Your task to perform on an android device: open chrome and create a bookmark for the current page Image 0: 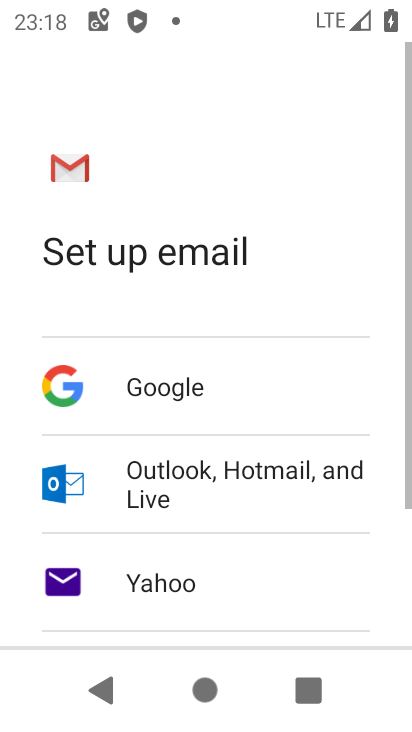
Step 0: press home button
Your task to perform on an android device: open chrome and create a bookmark for the current page Image 1: 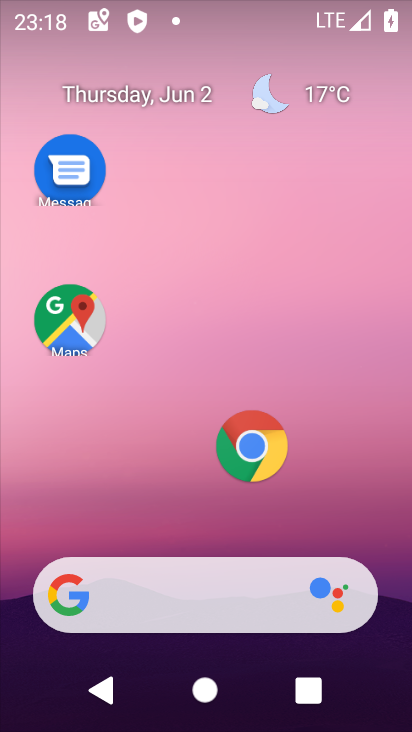
Step 1: click (267, 473)
Your task to perform on an android device: open chrome and create a bookmark for the current page Image 2: 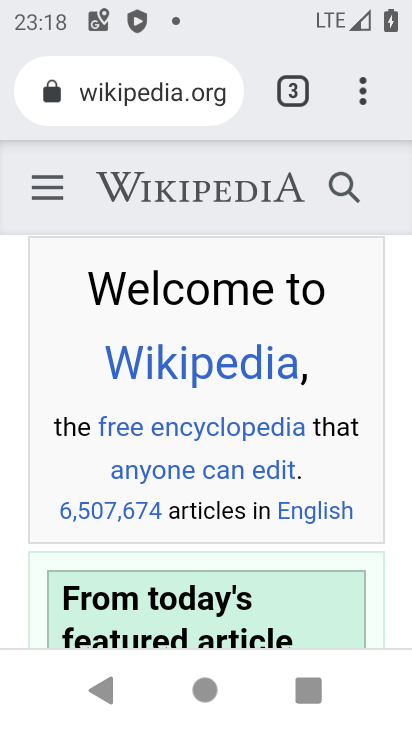
Step 2: drag from (372, 104) to (326, 57)
Your task to perform on an android device: open chrome and create a bookmark for the current page Image 3: 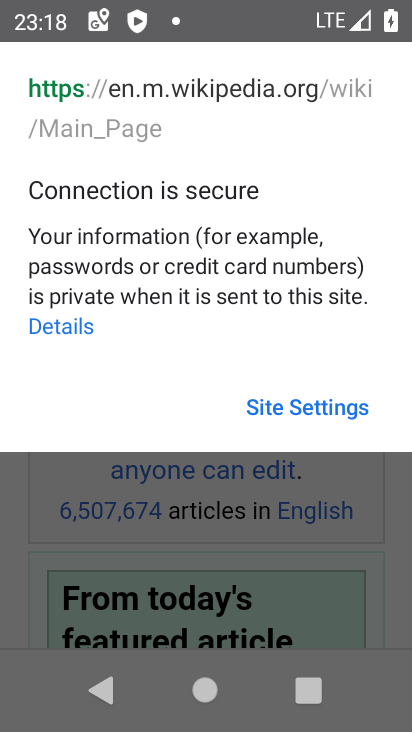
Step 3: click (349, 509)
Your task to perform on an android device: open chrome and create a bookmark for the current page Image 4: 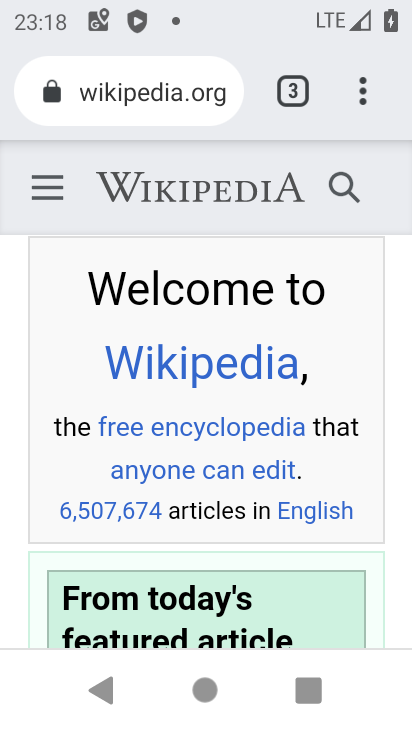
Step 4: click (194, 111)
Your task to perform on an android device: open chrome and create a bookmark for the current page Image 5: 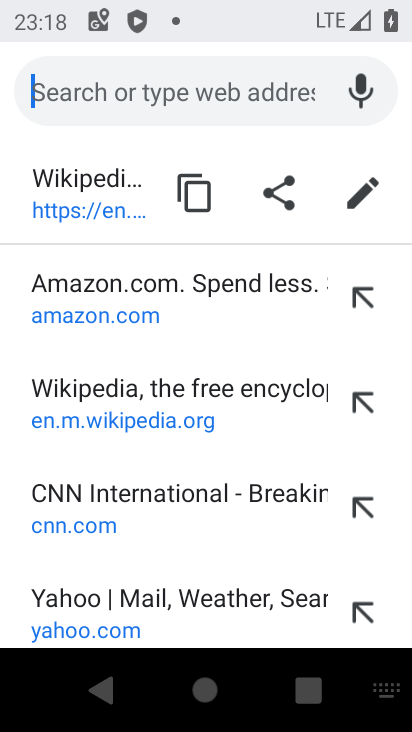
Step 5: click (180, 490)
Your task to perform on an android device: open chrome and create a bookmark for the current page Image 6: 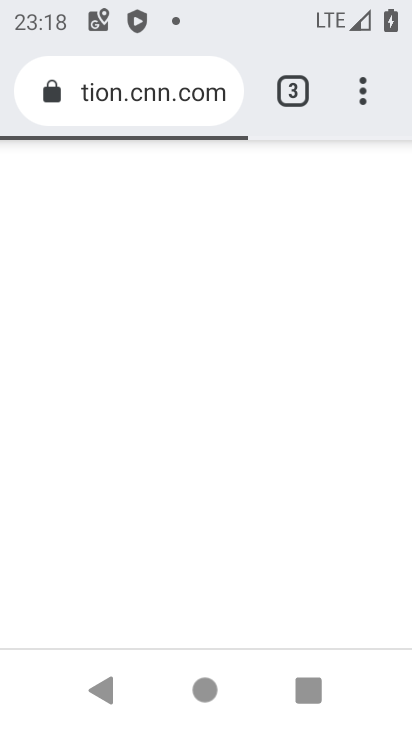
Step 6: drag from (387, 83) to (156, 85)
Your task to perform on an android device: open chrome and create a bookmark for the current page Image 7: 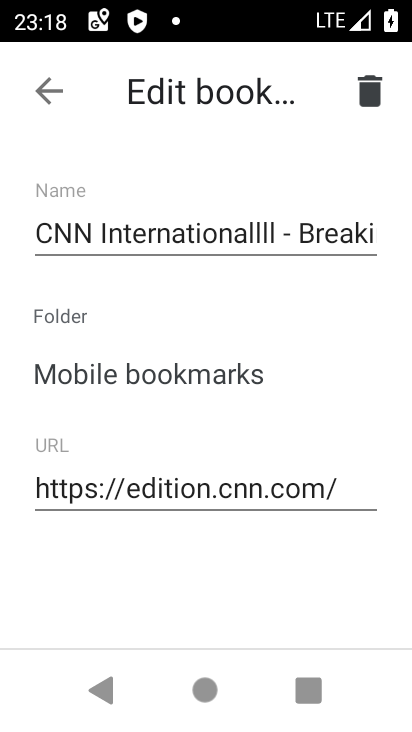
Step 7: click (29, 86)
Your task to perform on an android device: open chrome and create a bookmark for the current page Image 8: 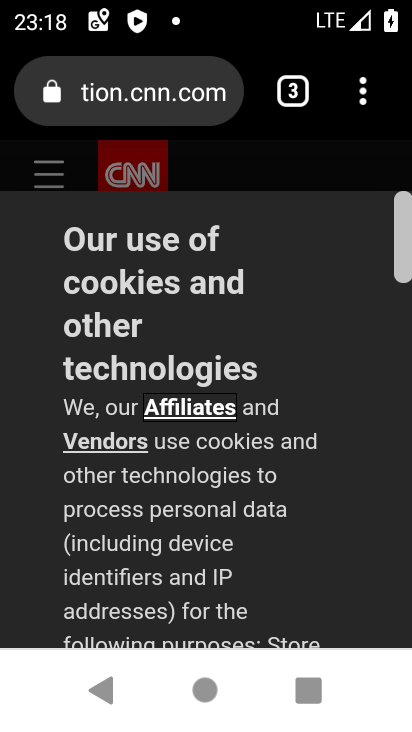
Step 8: task complete